Your task to perform on an android device: Go to notification settings Image 0: 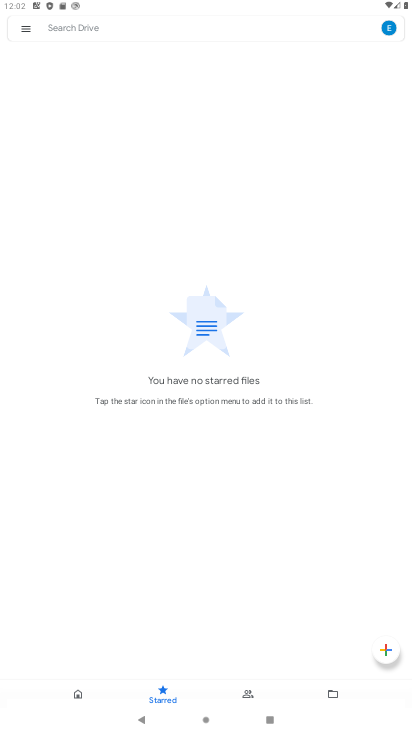
Step 0: press home button
Your task to perform on an android device: Go to notification settings Image 1: 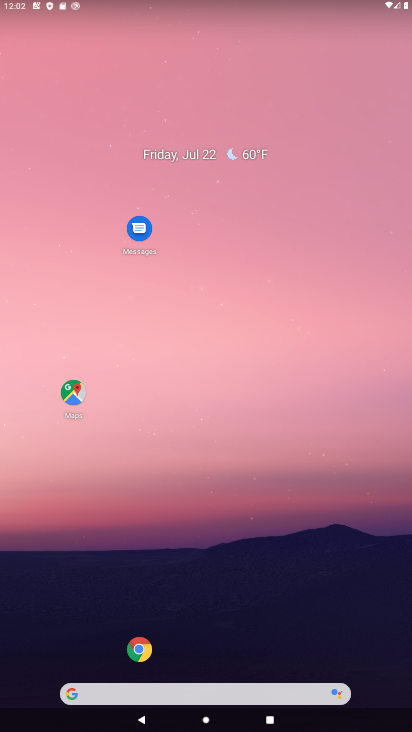
Step 1: drag from (25, 690) to (191, 118)
Your task to perform on an android device: Go to notification settings Image 2: 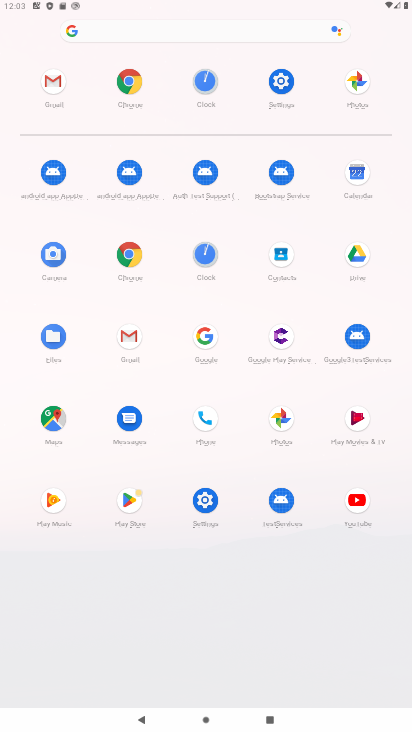
Step 2: click (211, 508)
Your task to perform on an android device: Go to notification settings Image 3: 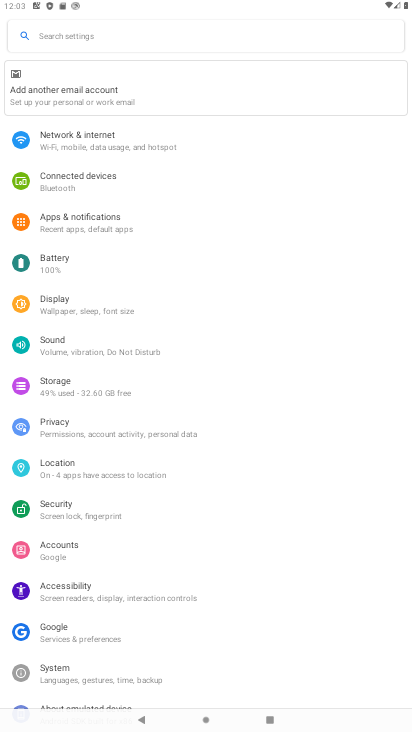
Step 3: click (63, 218)
Your task to perform on an android device: Go to notification settings Image 4: 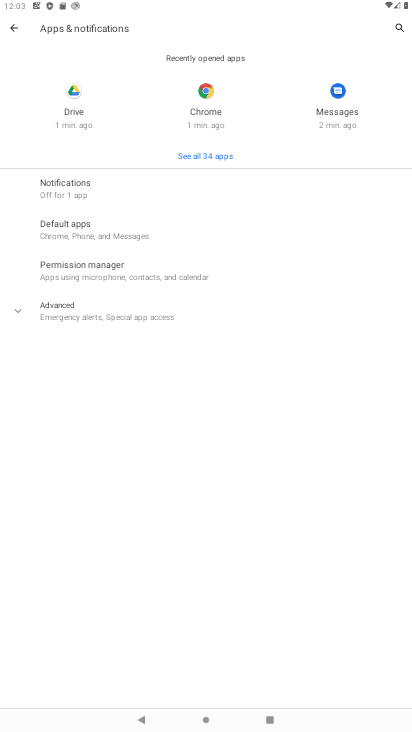
Step 4: task complete